Your task to perform on an android device: Search for pizza restaurants on Maps Image 0: 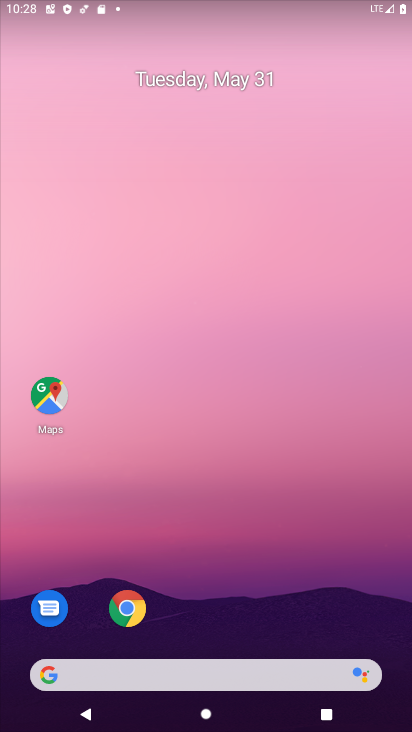
Step 0: click (49, 387)
Your task to perform on an android device: Search for pizza restaurants on Maps Image 1: 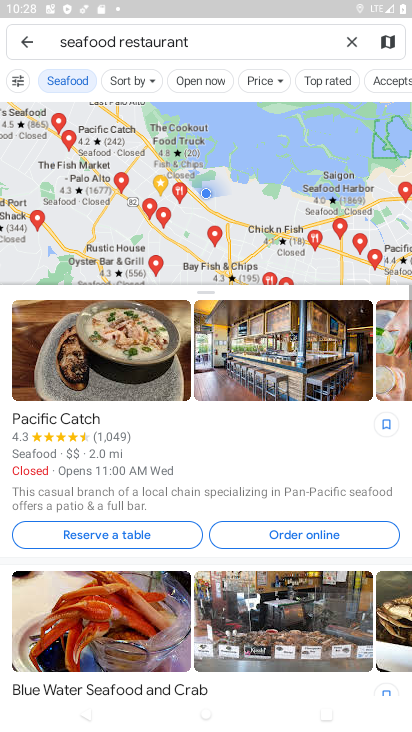
Step 1: click (357, 41)
Your task to perform on an android device: Search for pizza restaurants on Maps Image 2: 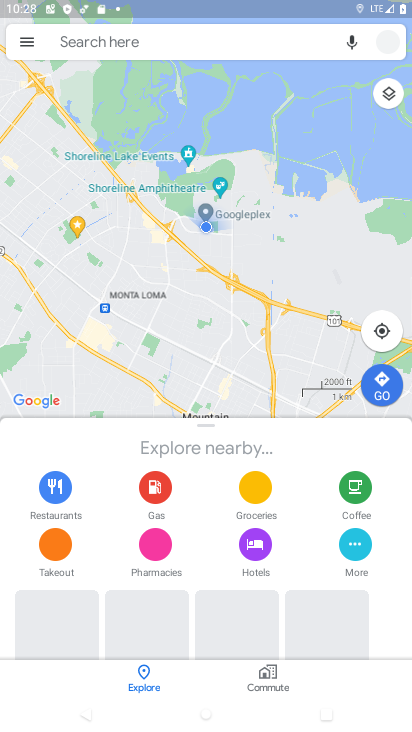
Step 2: click (110, 36)
Your task to perform on an android device: Search for pizza restaurants on Maps Image 3: 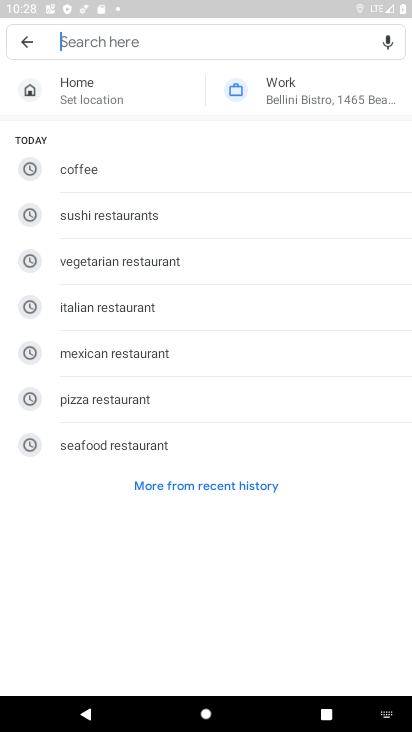
Step 3: click (122, 399)
Your task to perform on an android device: Search for pizza restaurants on Maps Image 4: 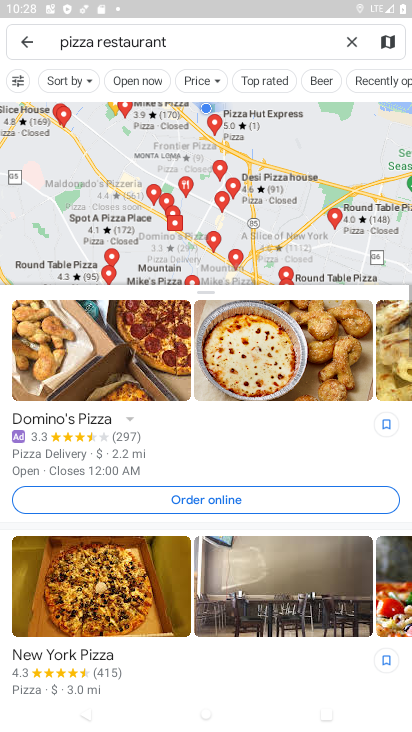
Step 4: task complete